Your task to perform on an android device: move an email to a new category in the gmail app Image 0: 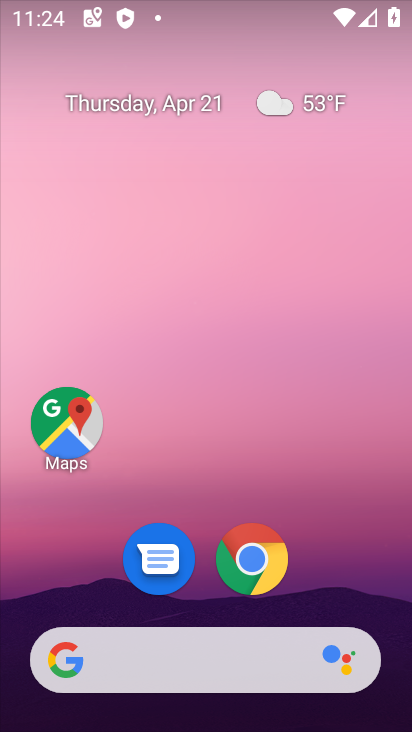
Step 0: drag from (396, 466) to (308, 9)
Your task to perform on an android device: move an email to a new category in the gmail app Image 1: 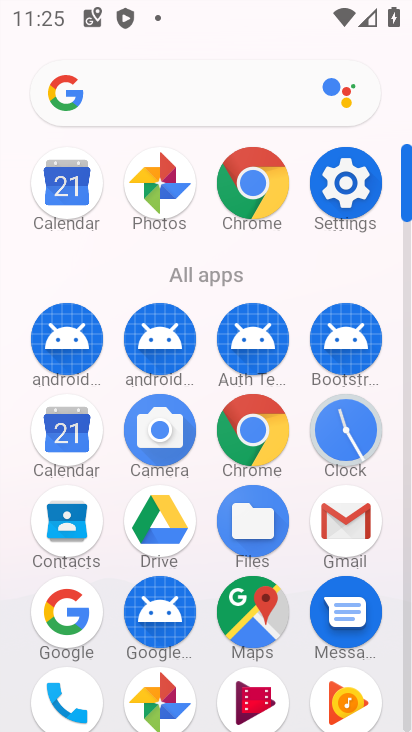
Step 1: click (355, 516)
Your task to perform on an android device: move an email to a new category in the gmail app Image 2: 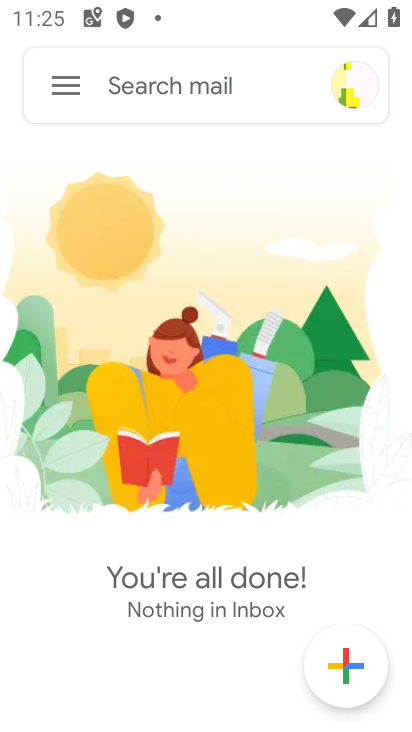
Step 2: click (63, 88)
Your task to perform on an android device: move an email to a new category in the gmail app Image 3: 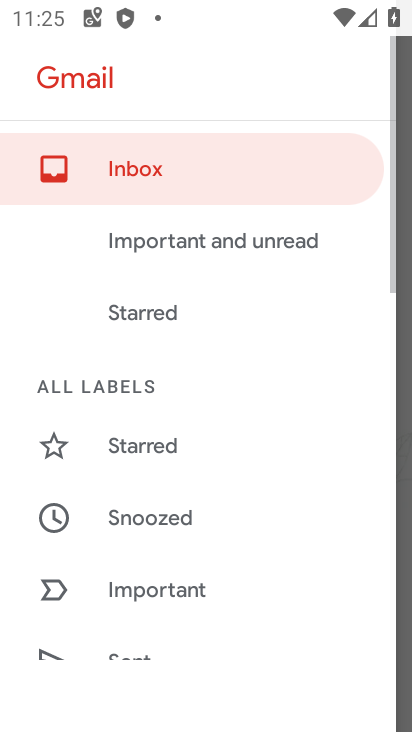
Step 3: drag from (232, 525) to (230, 121)
Your task to perform on an android device: move an email to a new category in the gmail app Image 4: 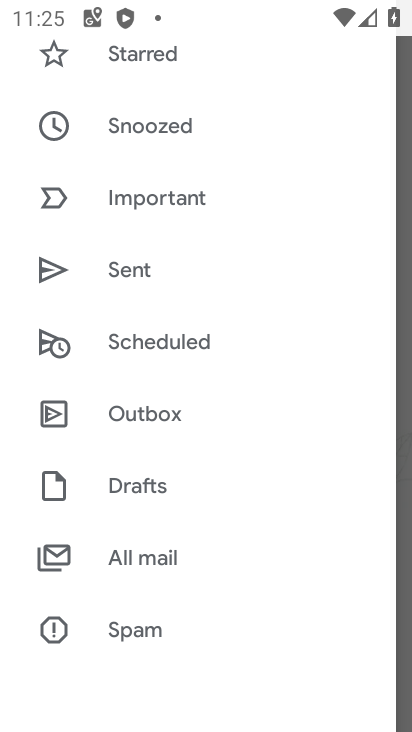
Step 4: click (154, 558)
Your task to perform on an android device: move an email to a new category in the gmail app Image 5: 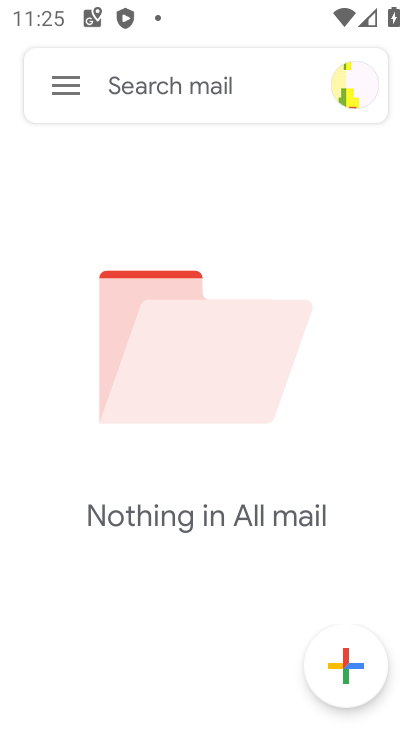
Step 5: click (163, 507)
Your task to perform on an android device: move an email to a new category in the gmail app Image 6: 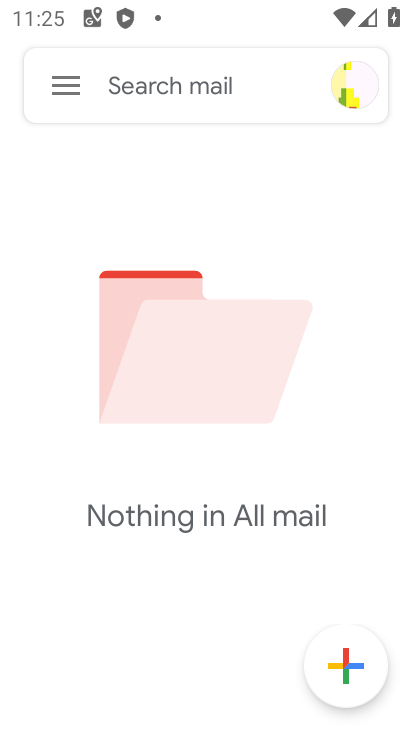
Step 6: task complete